Your task to perform on an android device: create a new album in the google photos Image 0: 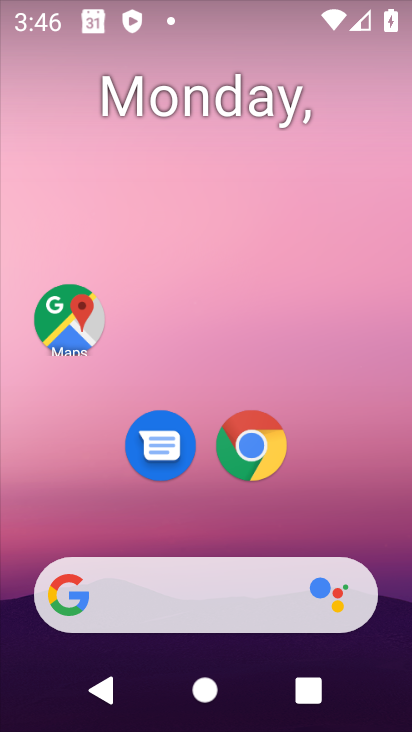
Step 0: drag from (224, 493) to (244, 117)
Your task to perform on an android device: create a new album in the google photos Image 1: 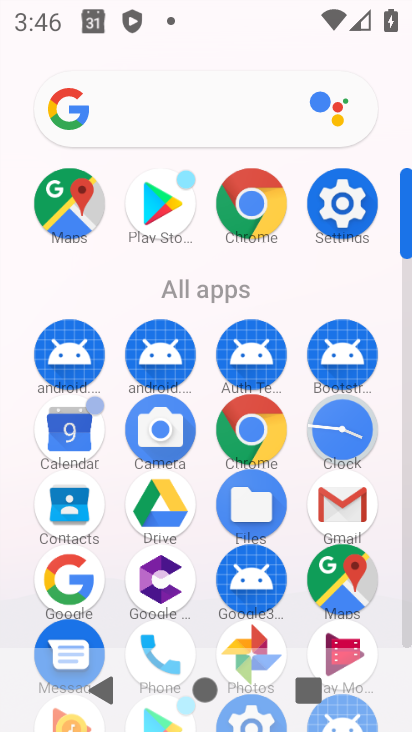
Step 1: click (251, 648)
Your task to perform on an android device: create a new album in the google photos Image 2: 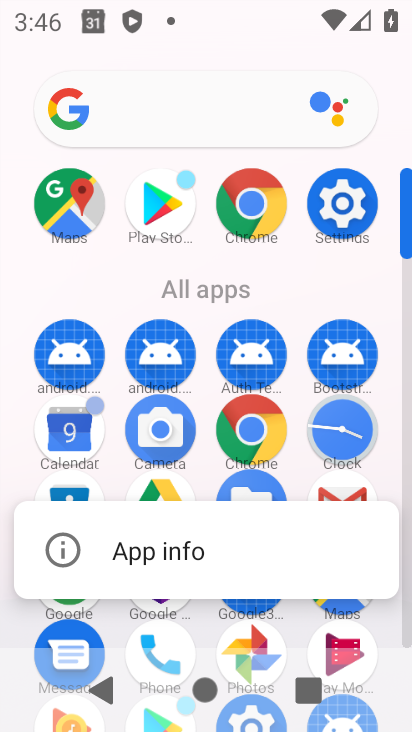
Step 2: click (256, 643)
Your task to perform on an android device: create a new album in the google photos Image 3: 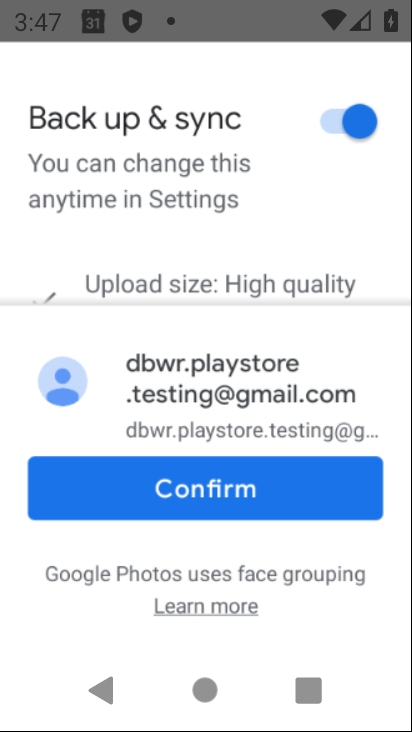
Step 3: click (250, 484)
Your task to perform on an android device: create a new album in the google photos Image 4: 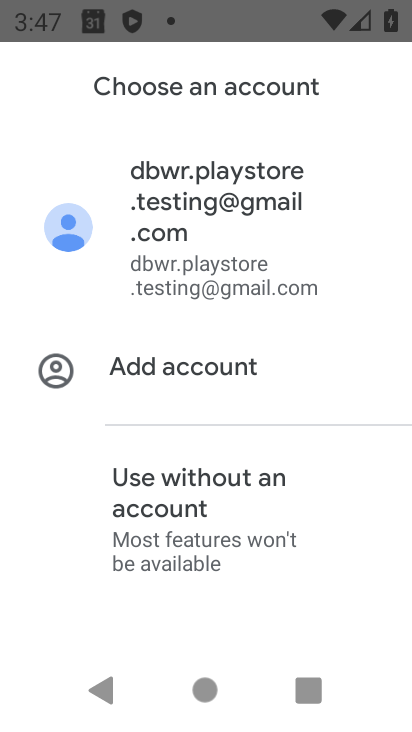
Step 4: click (233, 5)
Your task to perform on an android device: create a new album in the google photos Image 5: 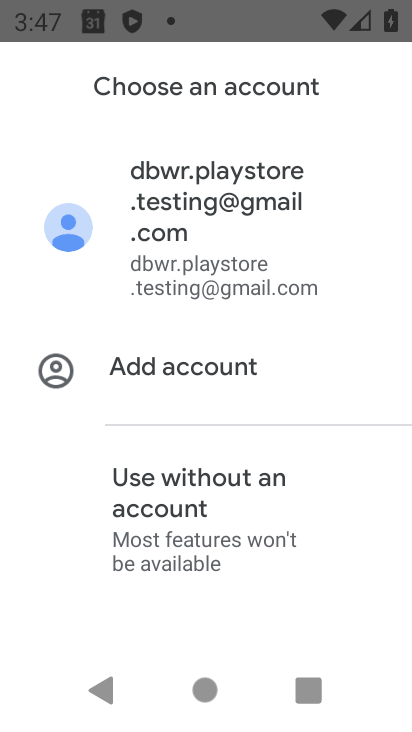
Step 5: press back button
Your task to perform on an android device: create a new album in the google photos Image 6: 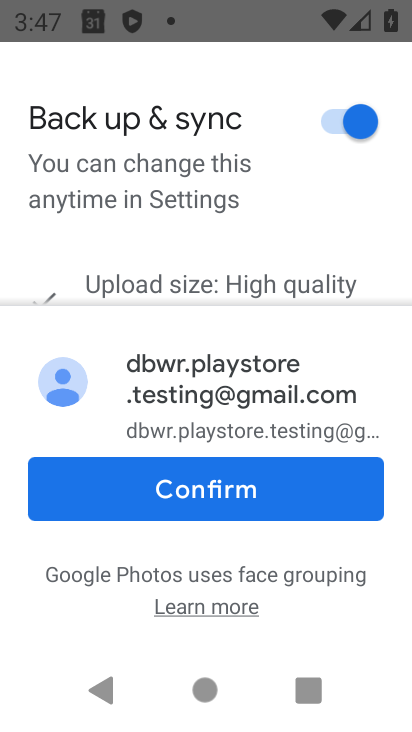
Step 6: press back button
Your task to perform on an android device: create a new album in the google photos Image 7: 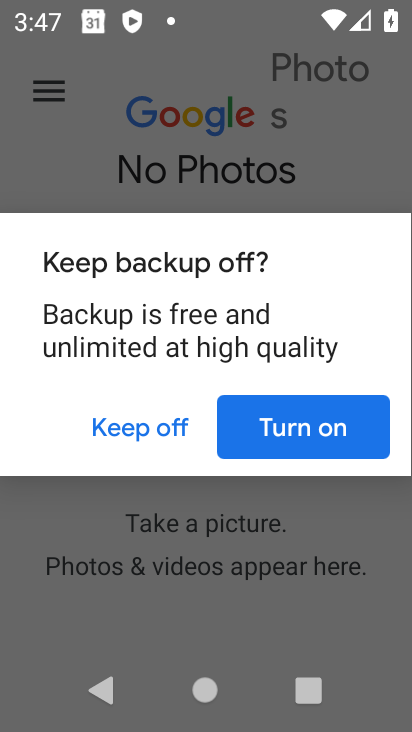
Step 7: click (294, 413)
Your task to perform on an android device: create a new album in the google photos Image 8: 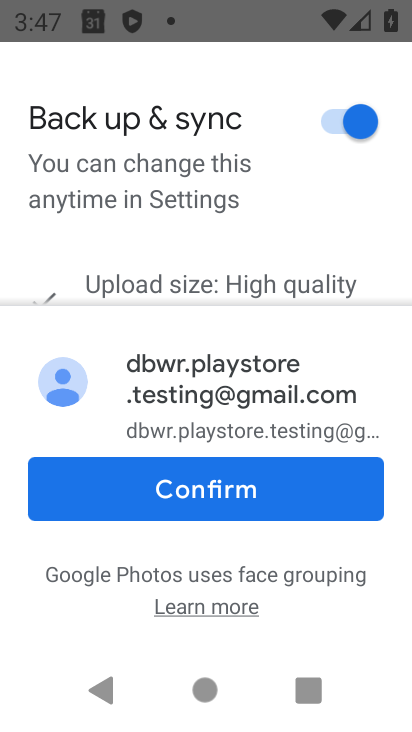
Step 8: click (365, 486)
Your task to perform on an android device: create a new album in the google photos Image 9: 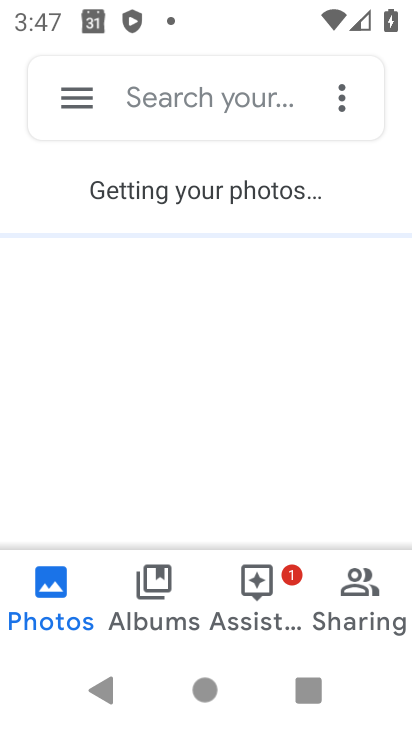
Step 9: click (144, 588)
Your task to perform on an android device: create a new album in the google photos Image 10: 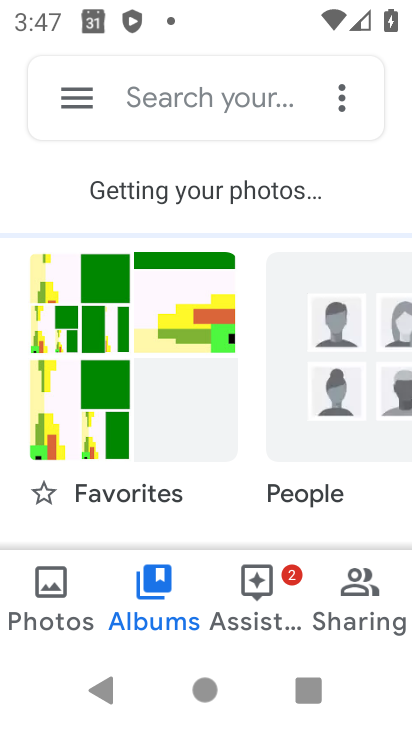
Step 10: drag from (164, 484) to (331, 46)
Your task to perform on an android device: create a new album in the google photos Image 11: 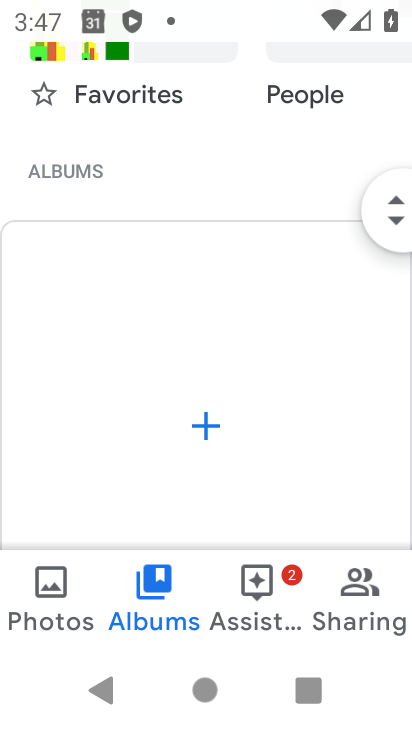
Step 11: click (205, 444)
Your task to perform on an android device: create a new album in the google photos Image 12: 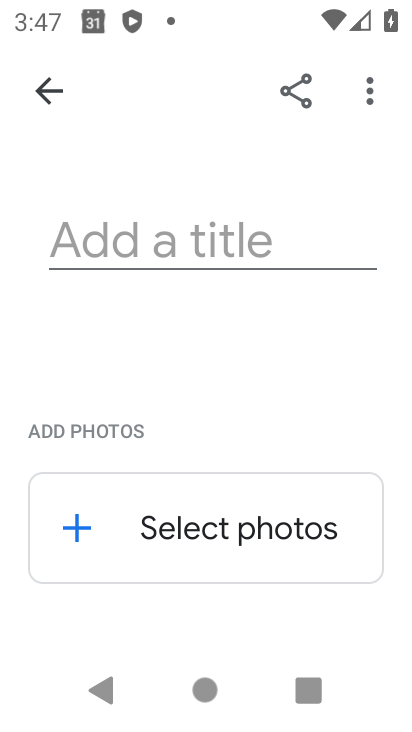
Step 12: click (210, 254)
Your task to perform on an android device: create a new album in the google photos Image 13: 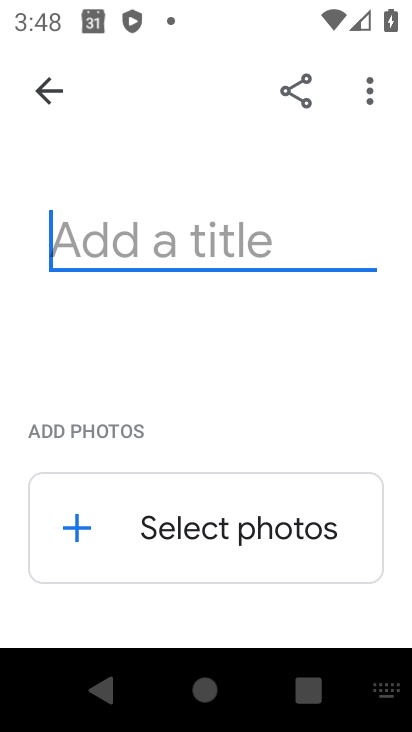
Step 13: type "tannu"
Your task to perform on an android device: create a new album in the google photos Image 14: 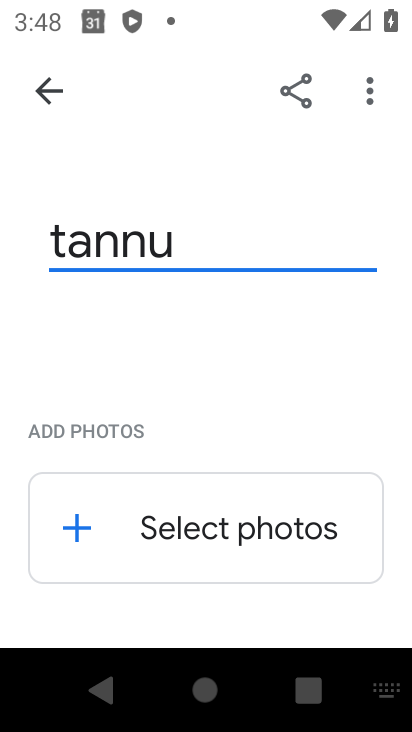
Step 14: click (83, 535)
Your task to perform on an android device: create a new album in the google photos Image 15: 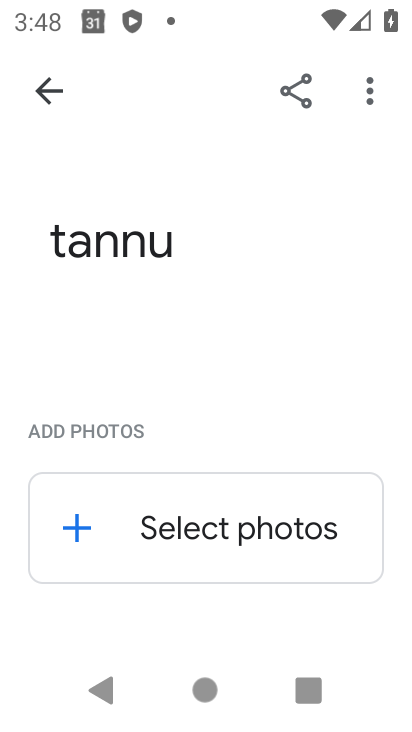
Step 15: click (76, 528)
Your task to perform on an android device: create a new album in the google photos Image 16: 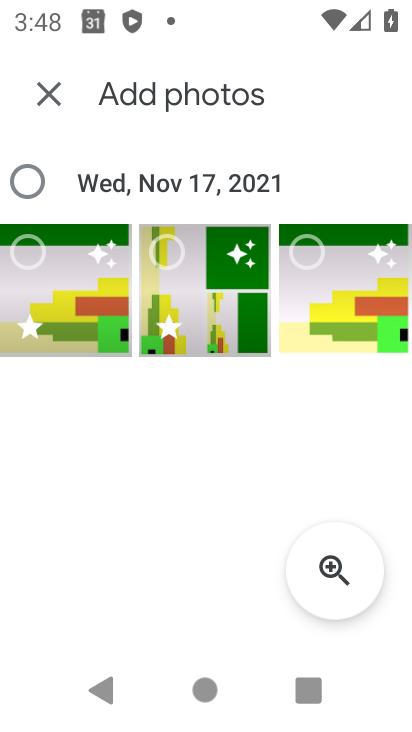
Step 16: click (38, 186)
Your task to perform on an android device: create a new album in the google photos Image 17: 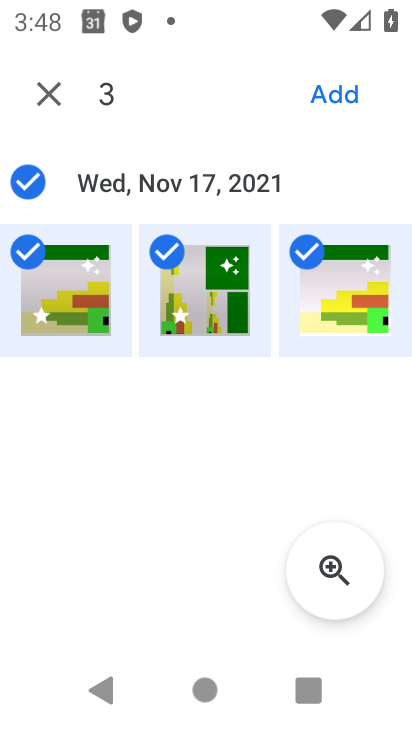
Step 17: click (332, 85)
Your task to perform on an android device: create a new album in the google photos Image 18: 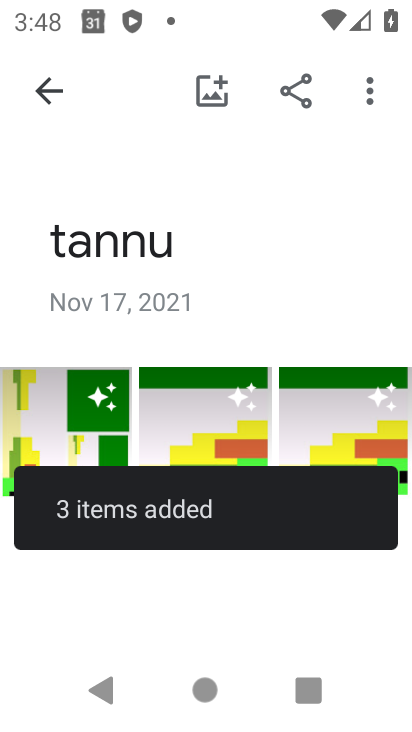
Step 18: task complete